Your task to perform on an android device: turn on javascript in the chrome app Image 0: 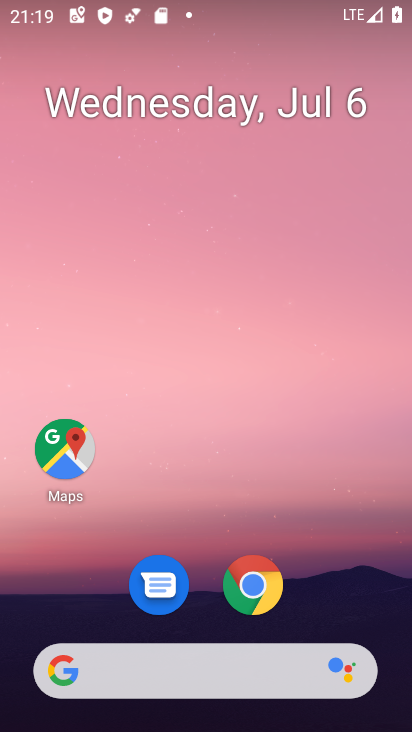
Step 0: drag from (193, 507) to (181, 28)
Your task to perform on an android device: turn on javascript in the chrome app Image 1: 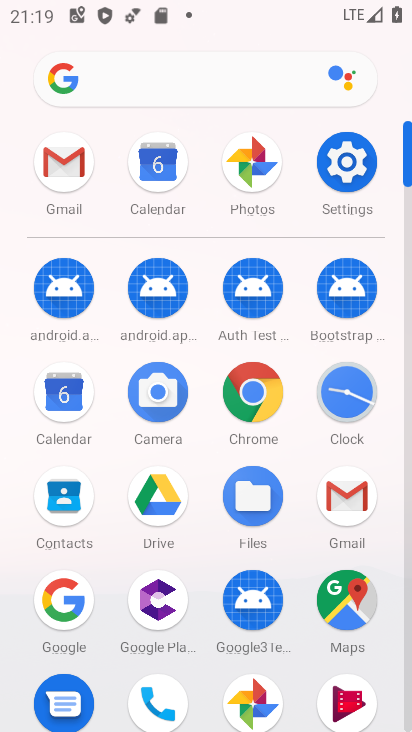
Step 1: click (242, 405)
Your task to perform on an android device: turn on javascript in the chrome app Image 2: 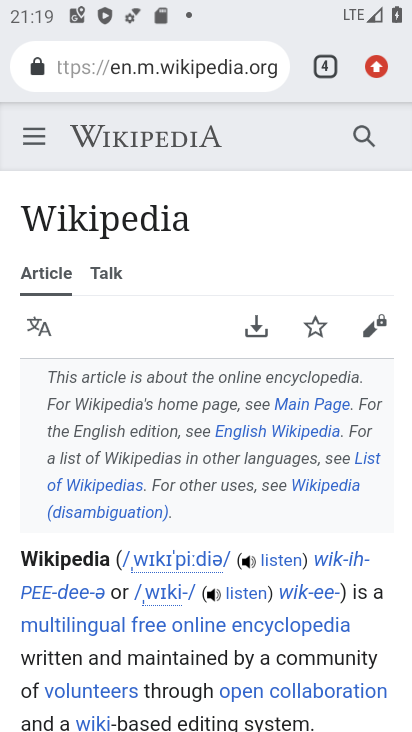
Step 2: click (377, 62)
Your task to perform on an android device: turn on javascript in the chrome app Image 3: 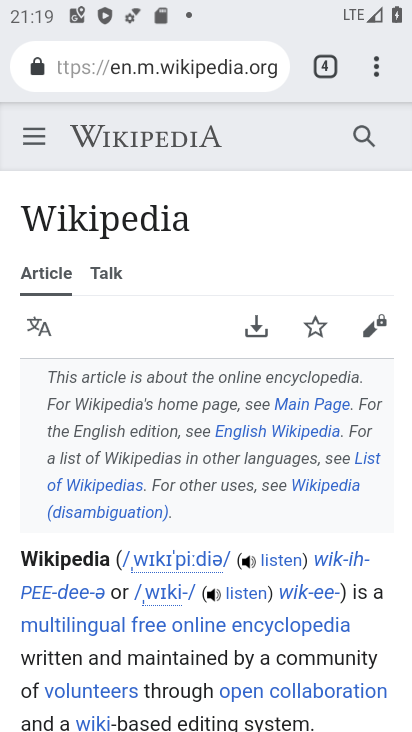
Step 3: click (377, 67)
Your task to perform on an android device: turn on javascript in the chrome app Image 4: 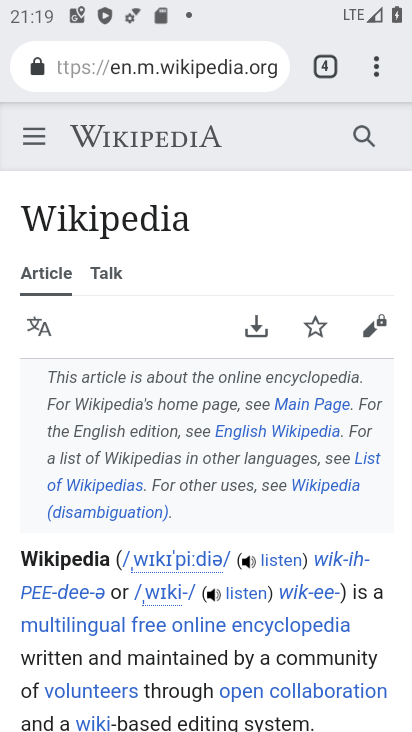
Step 4: click (377, 70)
Your task to perform on an android device: turn on javascript in the chrome app Image 5: 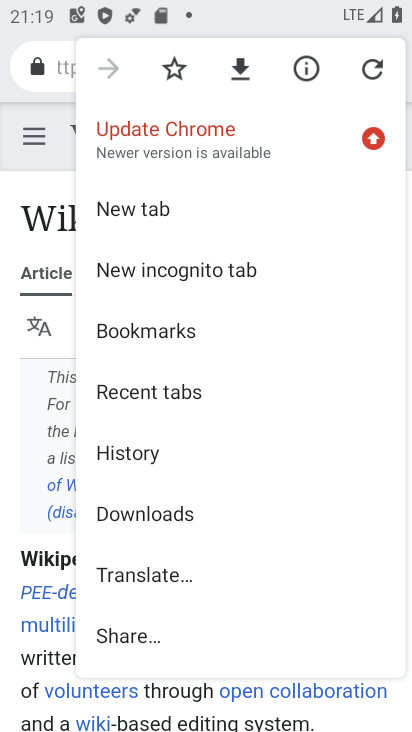
Step 5: drag from (216, 516) to (257, 119)
Your task to perform on an android device: turn on javascript in the chrome app Image 6: 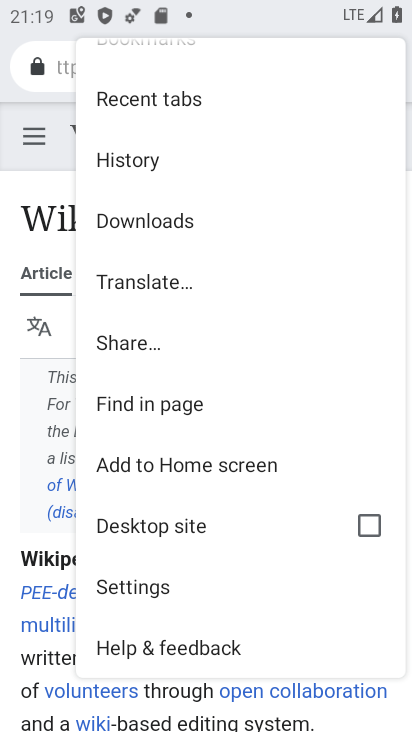
Step 6: click (153, 592)
Your task to perform on an android device: turn on javascript in the chrome app Image 7: 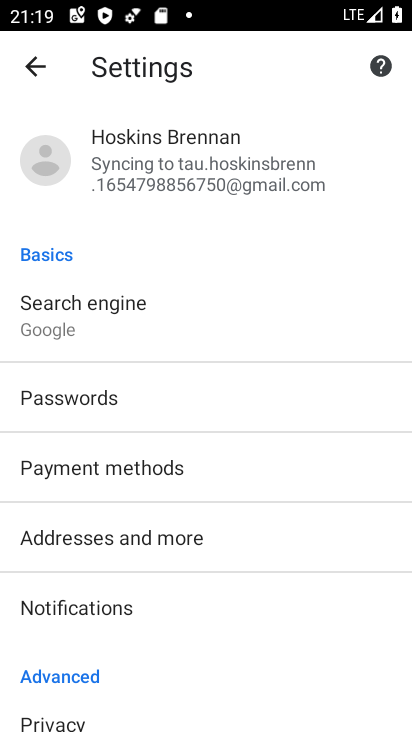
Step 7: drag from (245, 508) to (279, 151)
Your task to perform on an android device: turn on javascript in the chrome app Image 8: 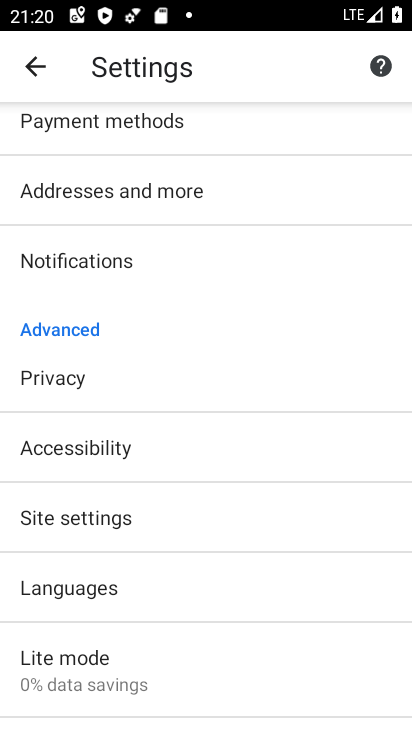
Step 8: drag from (249, 439) to (261, 195)
Your task to perform on an android device: turn on javascript in the chrome app Image 9: 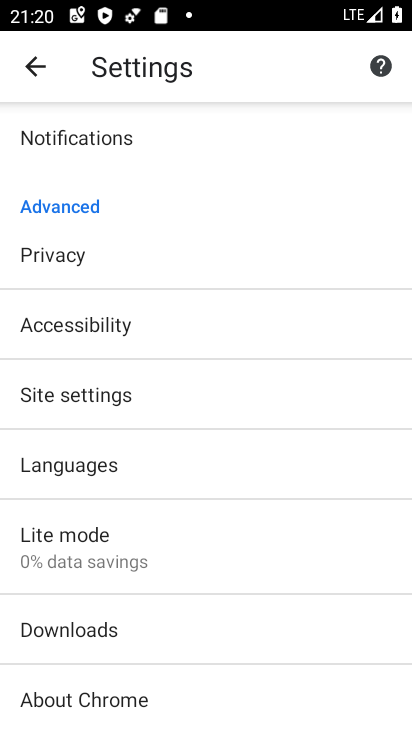
Step 9: click (151, 396)
Your task to perform on an android device: turn on javascript in the chrome app Image 10: 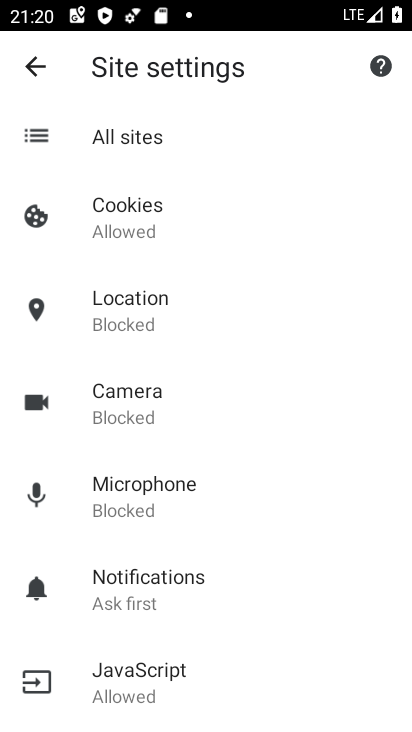
Step 10: drag from (230, 453) to (244, 314)
Your task to perform on an android device: turn on javascript in the chrome app Image 11: 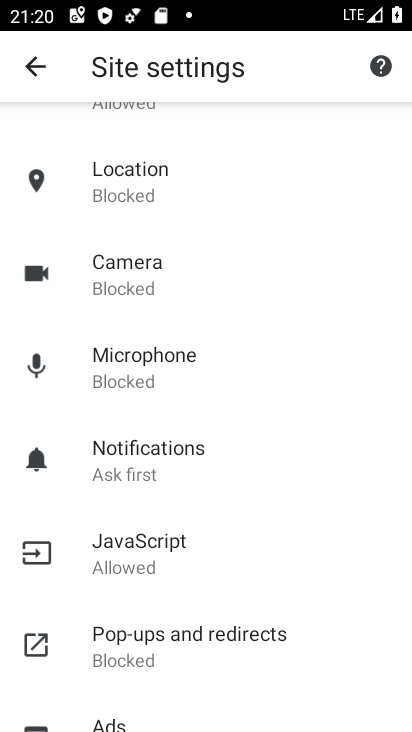
Step 11: click (185, 553)
Your task to perform on an android device: turn on javascript in the chrome app Image 12: 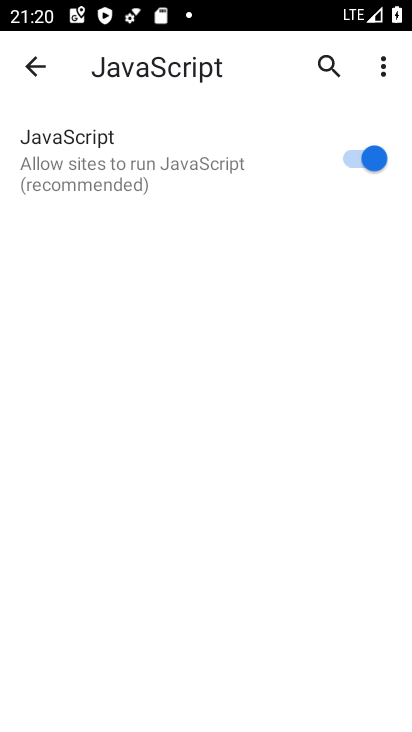
Step 12: task complete